Your task to perform on an android device: Search for sushi restaurants on Maps Image 0: 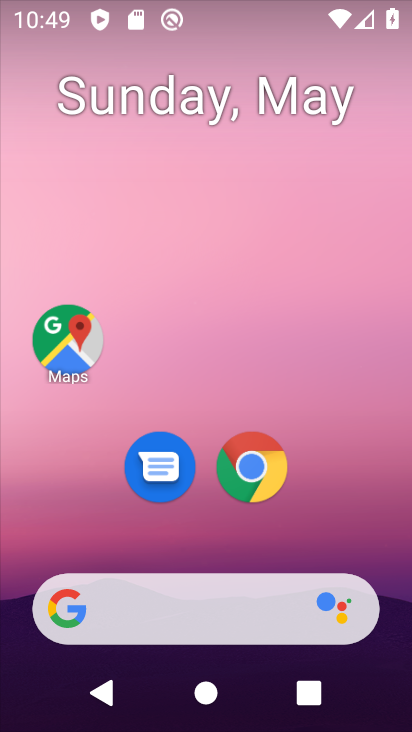
Step 0: click (69, 345)
Your task to perform on an android device: Search for sushi restaurants on Maps Image 1: 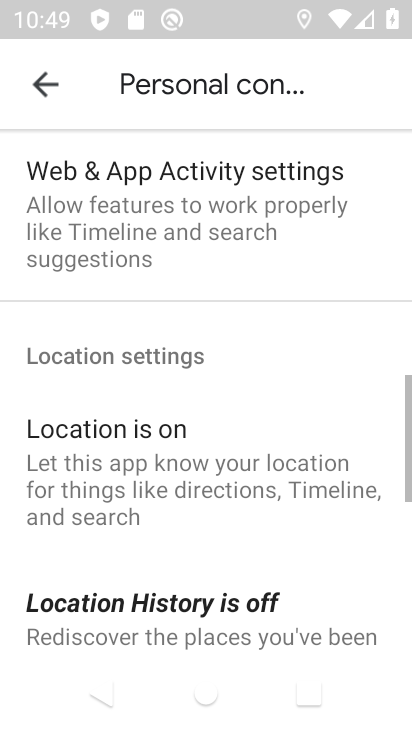
Step 1: click (39, 96)
Your task to perform on an android device: Search for sushi restaurants on Maps Image 2: 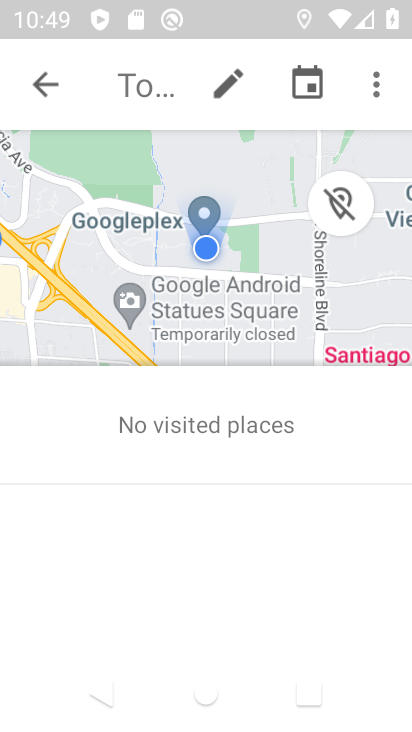
Step 2: click (39, 96)
Your task to perform on an android device: Search for sushi restaurants on Maps Image 3: 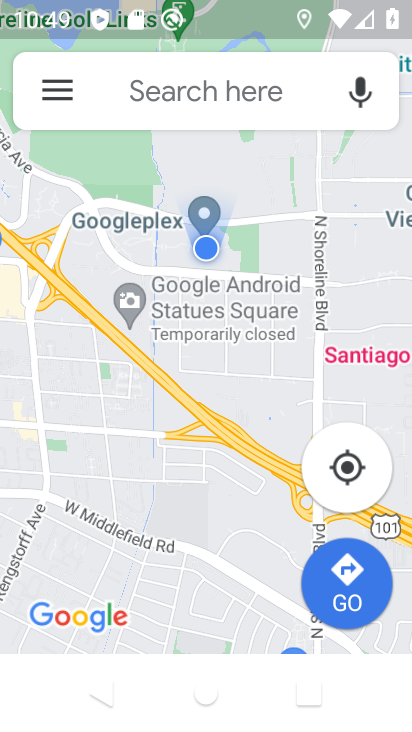
Step 3: click (143, 96)
Your task to perform on an android device: Search for sushi restaurants on Maps Image 4: 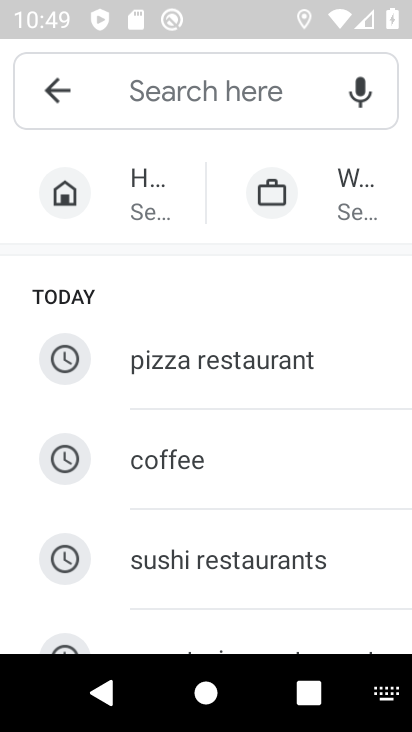
Step 4: type "sushi restaurant"
Your task to perform on an android device: Search for sushi restaurants on Maps Image 5: 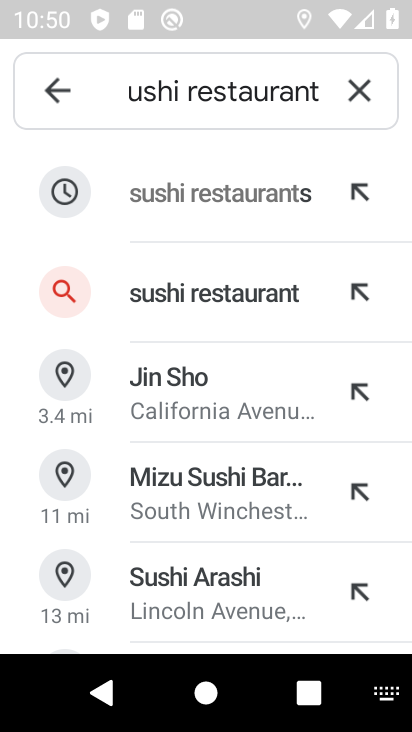
Step 5: click (164, 297)
Your task to perform on an android device: Search for sushi restaurants on Maps Image 6: 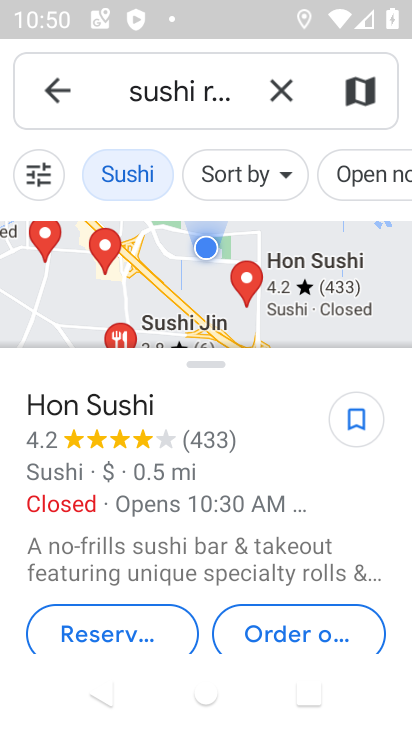
Step 6: task complete